Your task to perform on an android device: turn off javascript in the chrome app Image 0: 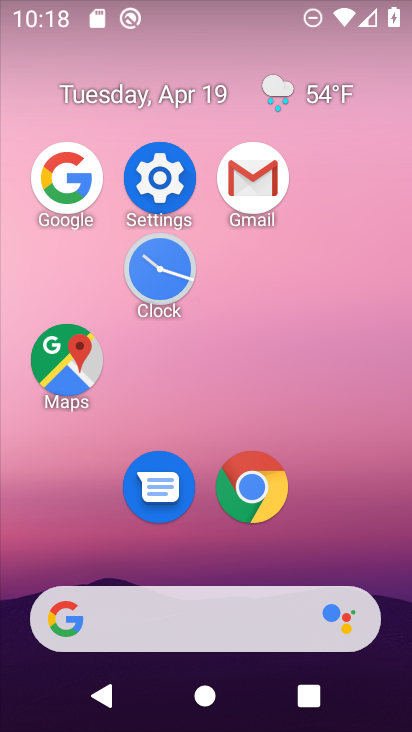
Step 0: click (263, 498)
Your task to perform on an android device: turn off javascript in the chrome app Image 1: 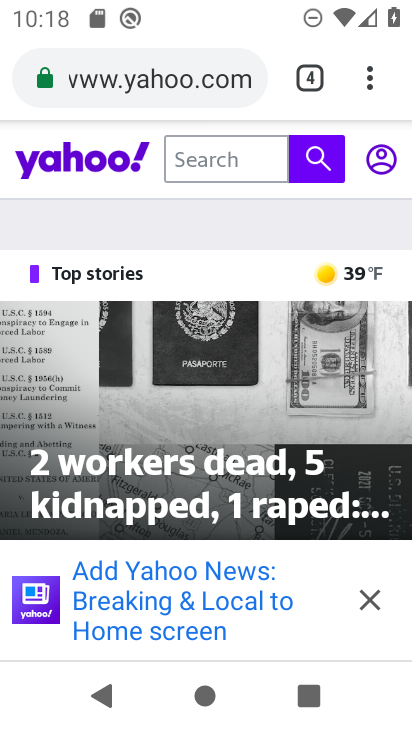
Step 1: click (378, 80)
Your task to perform on an android device: turn off javascript in the chrome app Image 2: 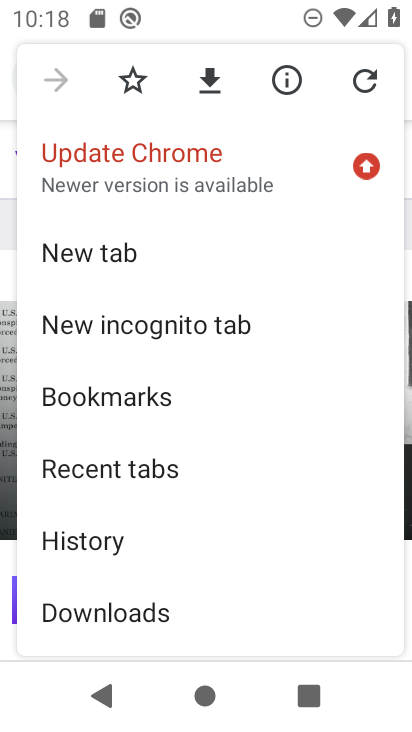
Step 2: drag from (286, 577) to (317, 106)
Your task to perform on an android device: turn off javascript in the chrome app Image 3: 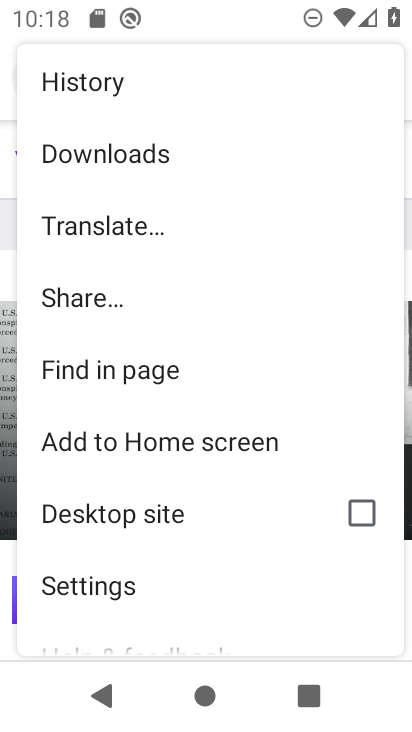
Step 3: click (122, 595)
Your task to perform on an android device: turn off javascript in the chrome app Image 4: 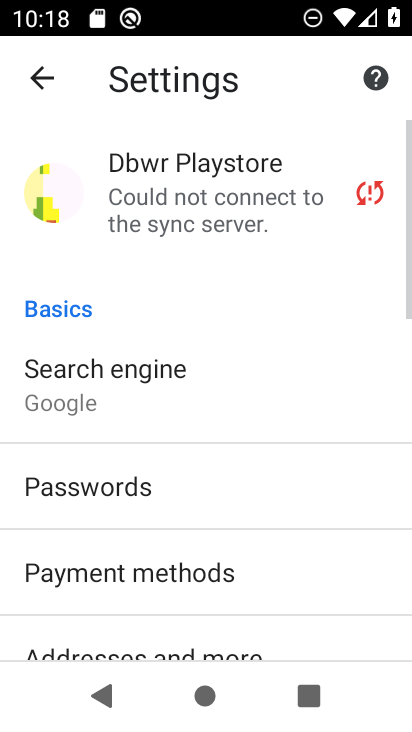
Step 4: drag from (175, 600) to (265, 190)
Your task to perform on an android device: turn off javascript in the chrome app Image 5: 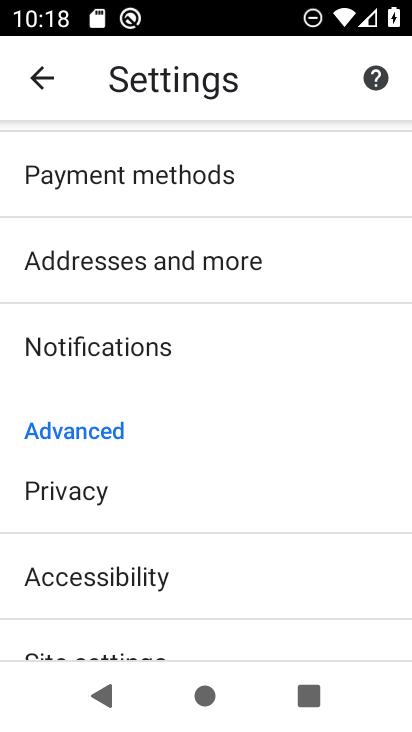
Step 5: drag from (219, 610) to (276, 266)
Your task to perform on an android device: turn off javascript in the chrome app Image 6: 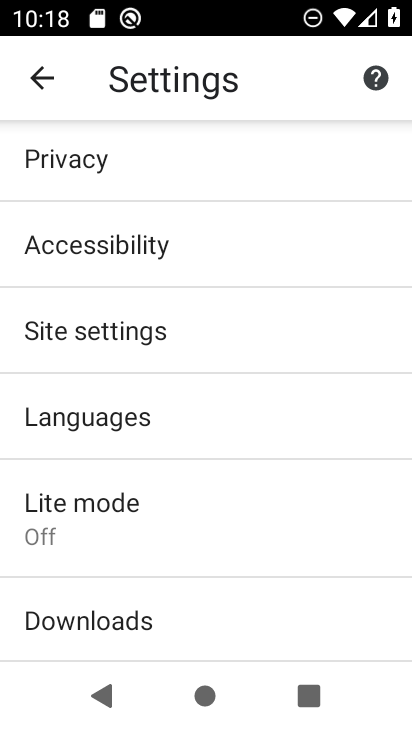
Step 6: click (237, 333)
Your task to perform on an android device: turn off javascript in the chrome app Image 7: 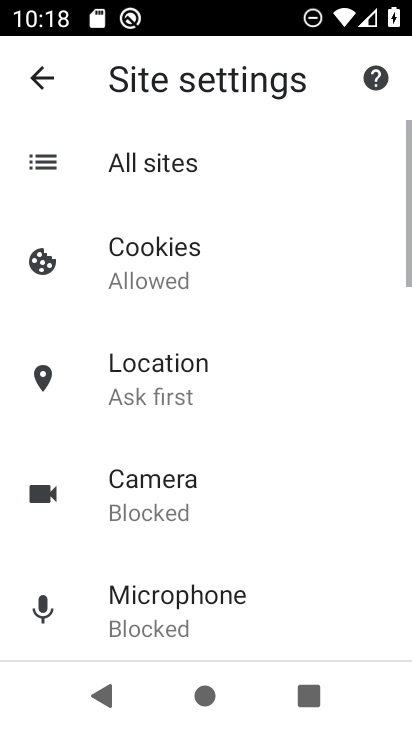
Step 7: drag from (290, 539) to (349, 103)
Your task to perform on an android device: turn off javascript in the chrome app Image 8: 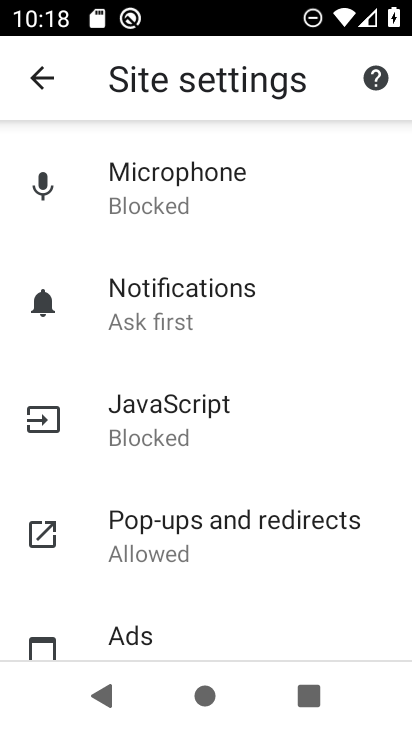
Step 8: click (228, 405)
Your task to perform on an android device: turn off javascript in the chrome app Image 9: 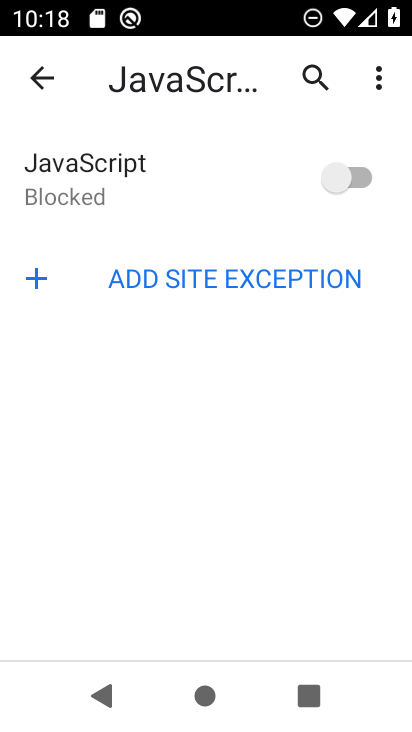
Step 9: task complete